Your task to perform on an android device: turn off airplane mode Image 0: 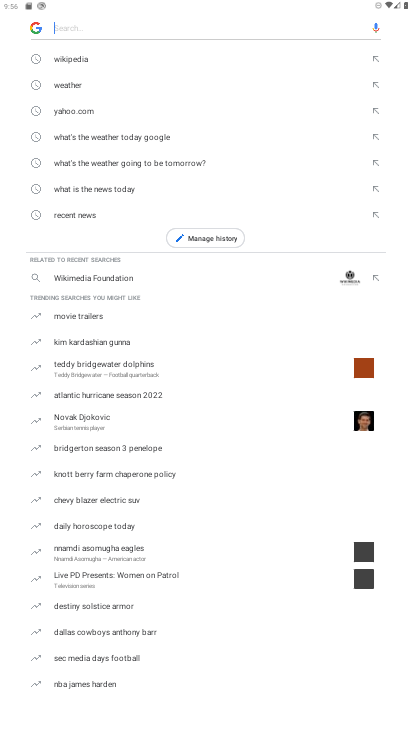
Step 0: drag from (182, 642) to (283, 115)
Your task to perform on an android device: turn off airplane mode Image 1: 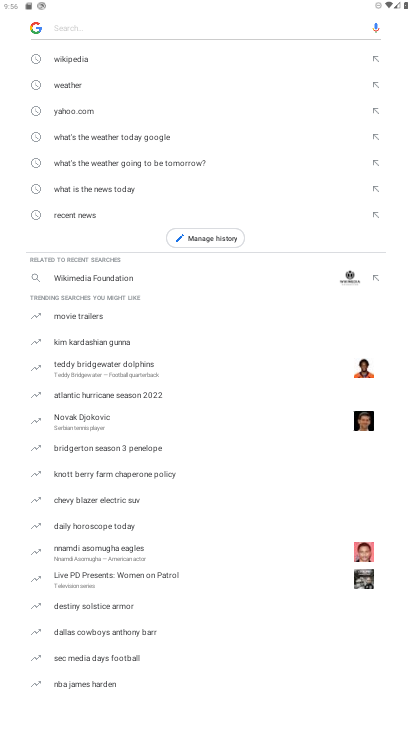
Step 1: press home button
Your task to perform on an android device: turn off airplane mode Image 2: 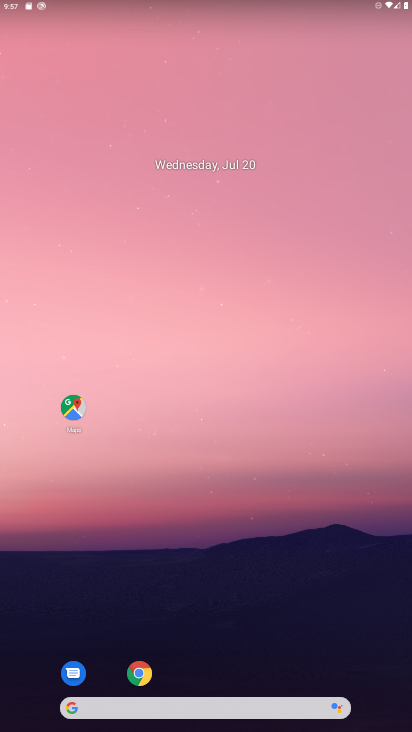
Step 2: drag from (218, 680) to (258, 59)
Your task to perform on an android device: turn off airplane mode Image 3: 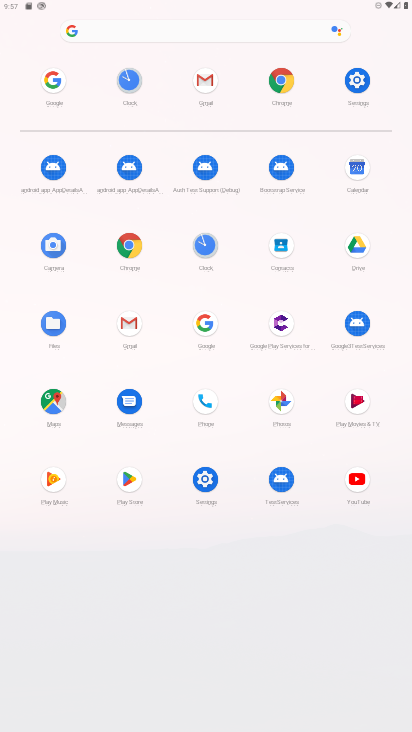
Step 3: click (356, 84)
Your task to perform on an android device: turn off airplane mode Image 4: 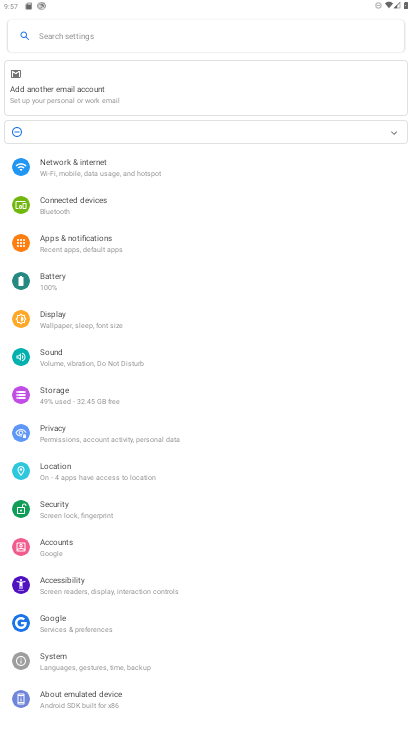
Step 4: click (131, 165)
Your task to perform on an android device: turn off airplane mode Image 5: 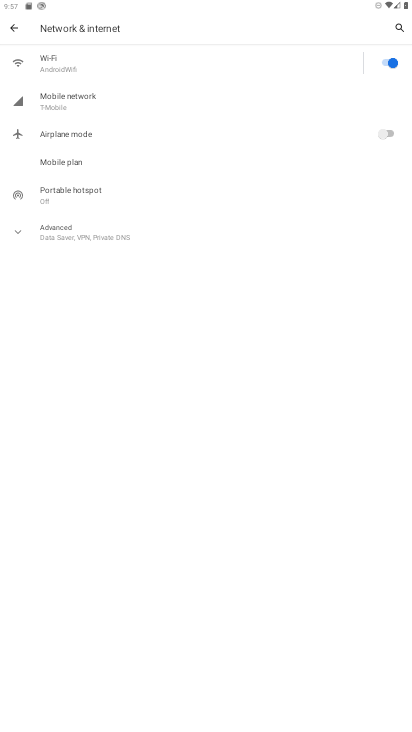
Step 5: task complete